Your task to perform on an android device: What's the weather today? Image 0: 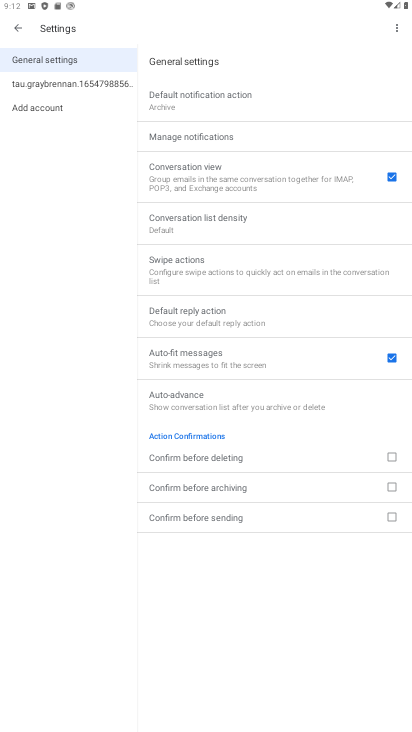
Step 0: press home button
Your task to perform on an android device: What's the weather today? Image 1: 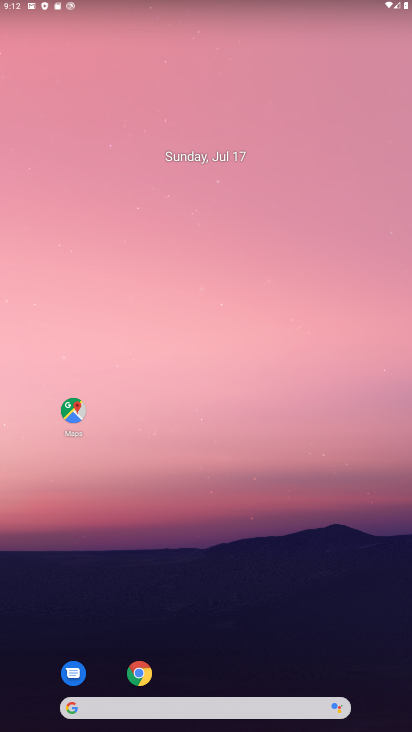
Step 1: click (182, 702)
Your task to perform on an android device: What's the weather today? Image 2: 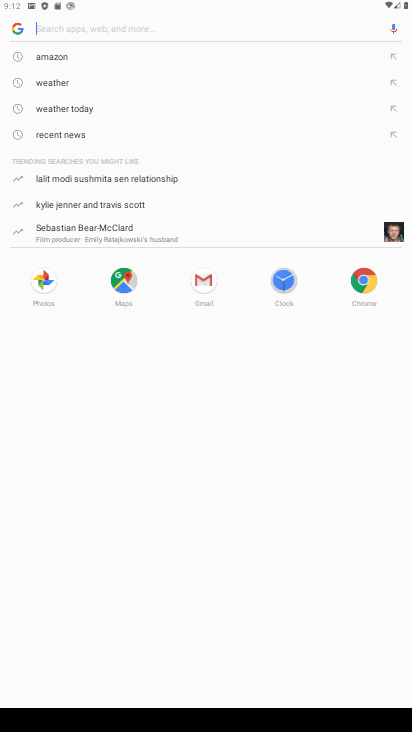
Step 2: click (58, 80)
Your task to perform on an android device: What's the weather today? Image 3: 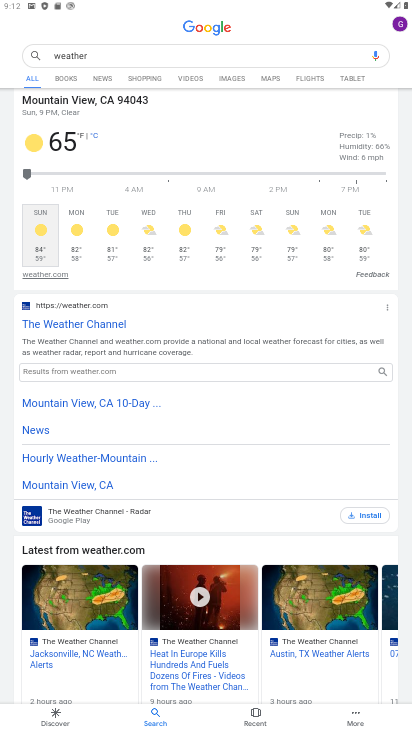
Step 3: task complete